Your task to perform on an android device: Open calendar and show me the third week of next month Image 0: 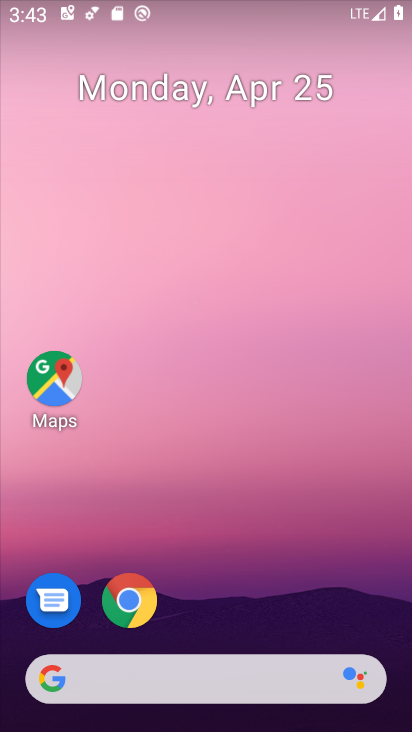
Step 0: drag from (253, 121) to (251, 28)
Your task to perform on an android device: Open calendar and show me the third week of next month Image 1: 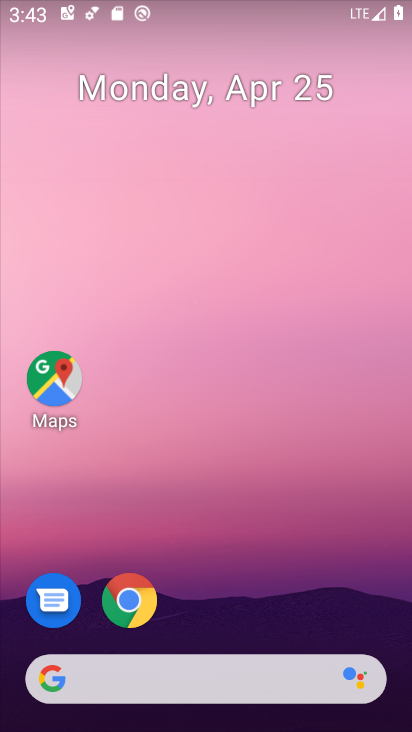
Step 1: drag from (238, 521) to (211, 4)
Your task to perform on an android device: Open calendar and show me the third week of next month Image 2: 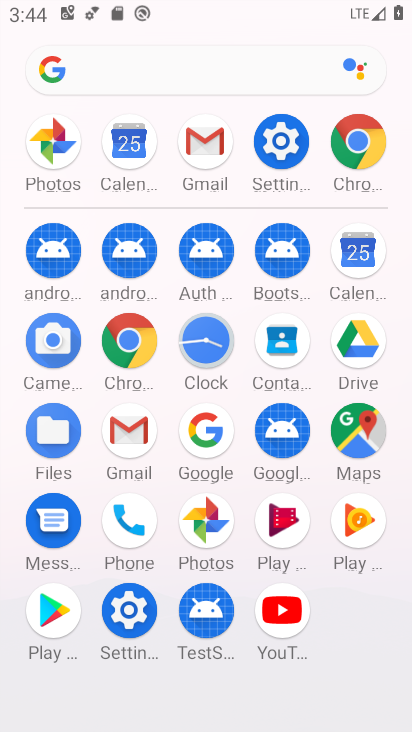
Step 2: drag from (0, 562) to (8, 276)
Your task to perform on an android device: Open calendar and show me the third week of next month Image 3: 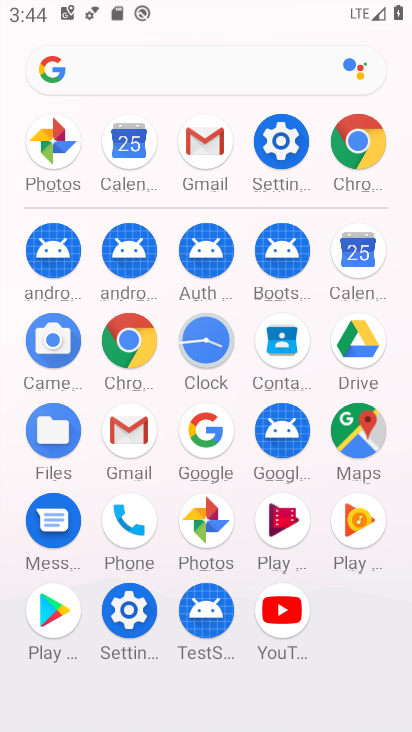
Step 3: click (359, 242)
Your task to perform on an android device: Open calendar and show me the third week of next month Image 4: 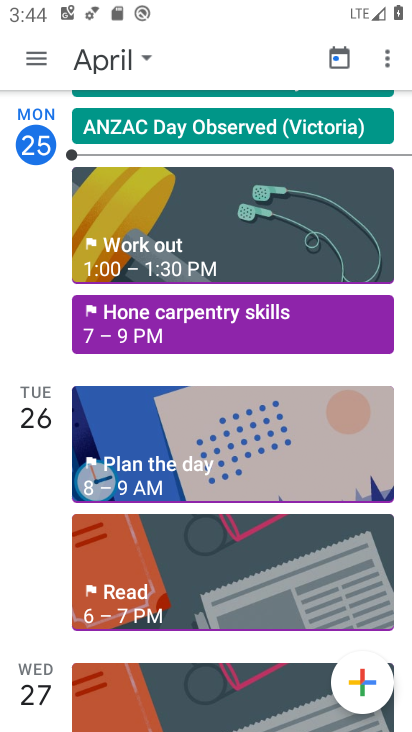
Step 4: click (102, 61)
Your task to perform on an android device: Open calendar and show me the third week of next month Image 5: 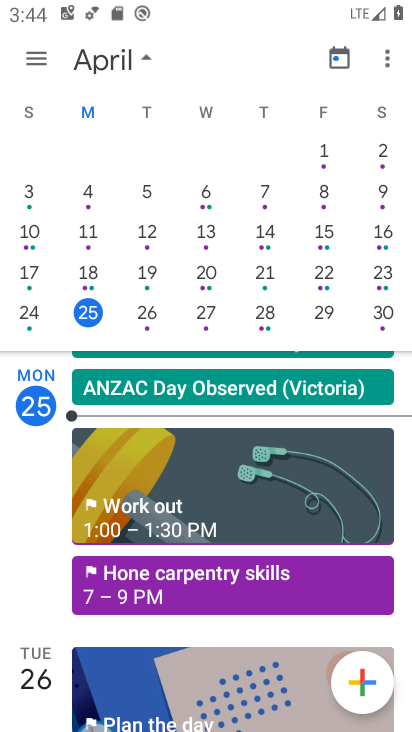
Step 5: drag from (387, 241) to (5, 271)
Your task to perform on an android device: Open calendar and show me the third week of next month Image 6: 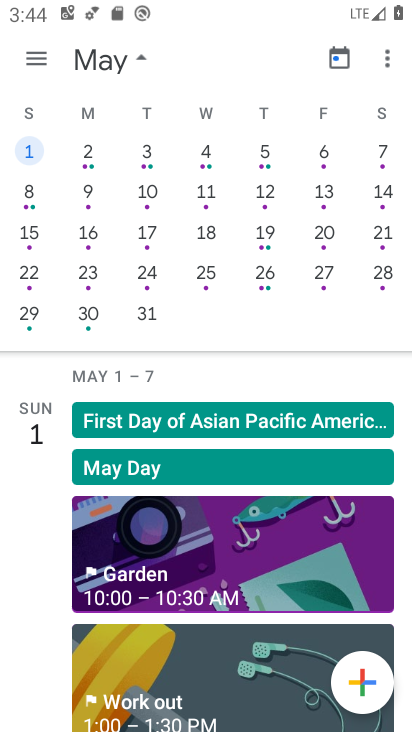
Step 6: click (28, 237)
Your task to perform on an android device: Open calendar and show me the third week of next month Image 7: 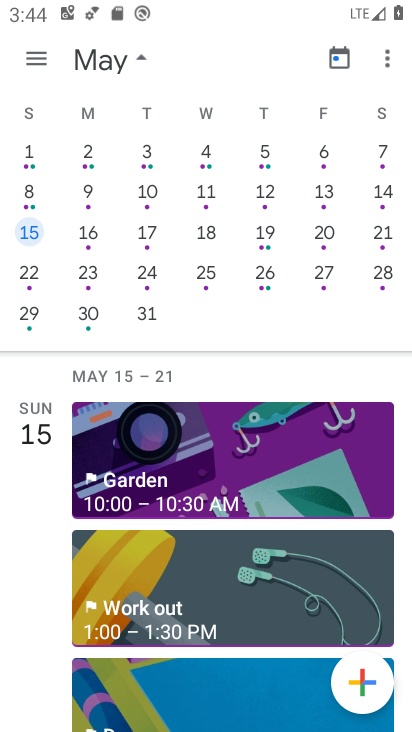
Step 7: click (23, 50)
Your task to perform on an android device: Open calendar and show me the third week of next month Image 8: 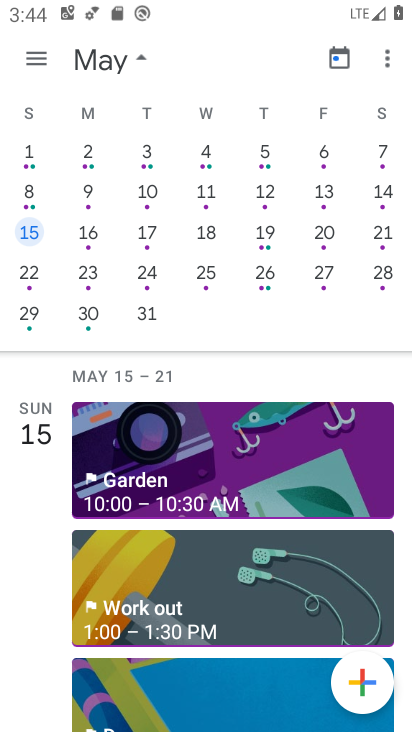
Step 8: click (31, 50)
Your task to perform on an android device: Open calendar and show me the third week of next month Image 9: 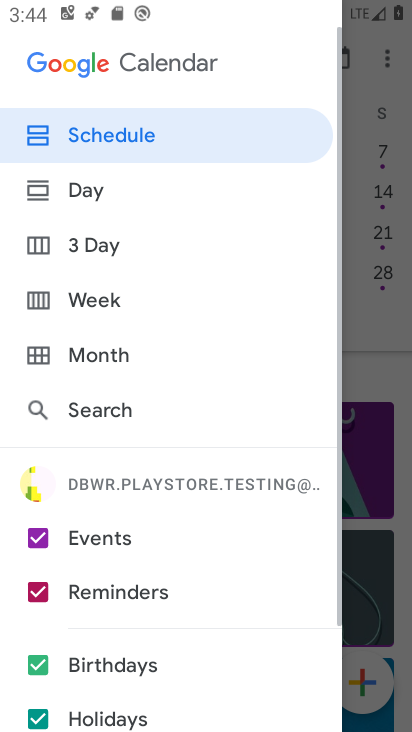
Step 9: click (105, 297)
Your task to perform on an android device: Open calendar and show me the third week of next month Image 10: 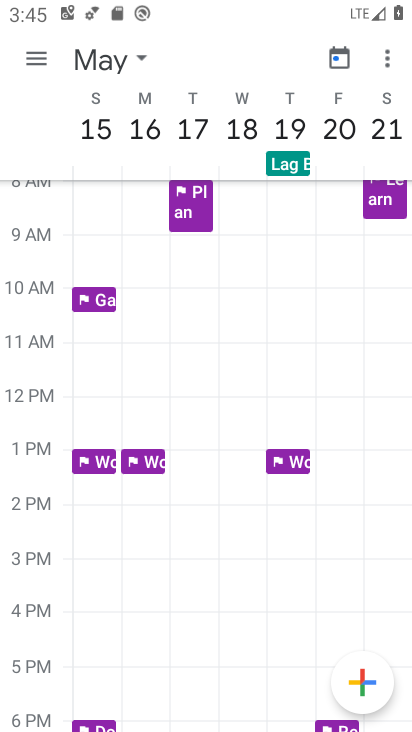
Step 10: task complete